Your task to perform on an android device: Search for usb-b on newegg, select the first entry, add it to the cart, then select checkout. Image 0: 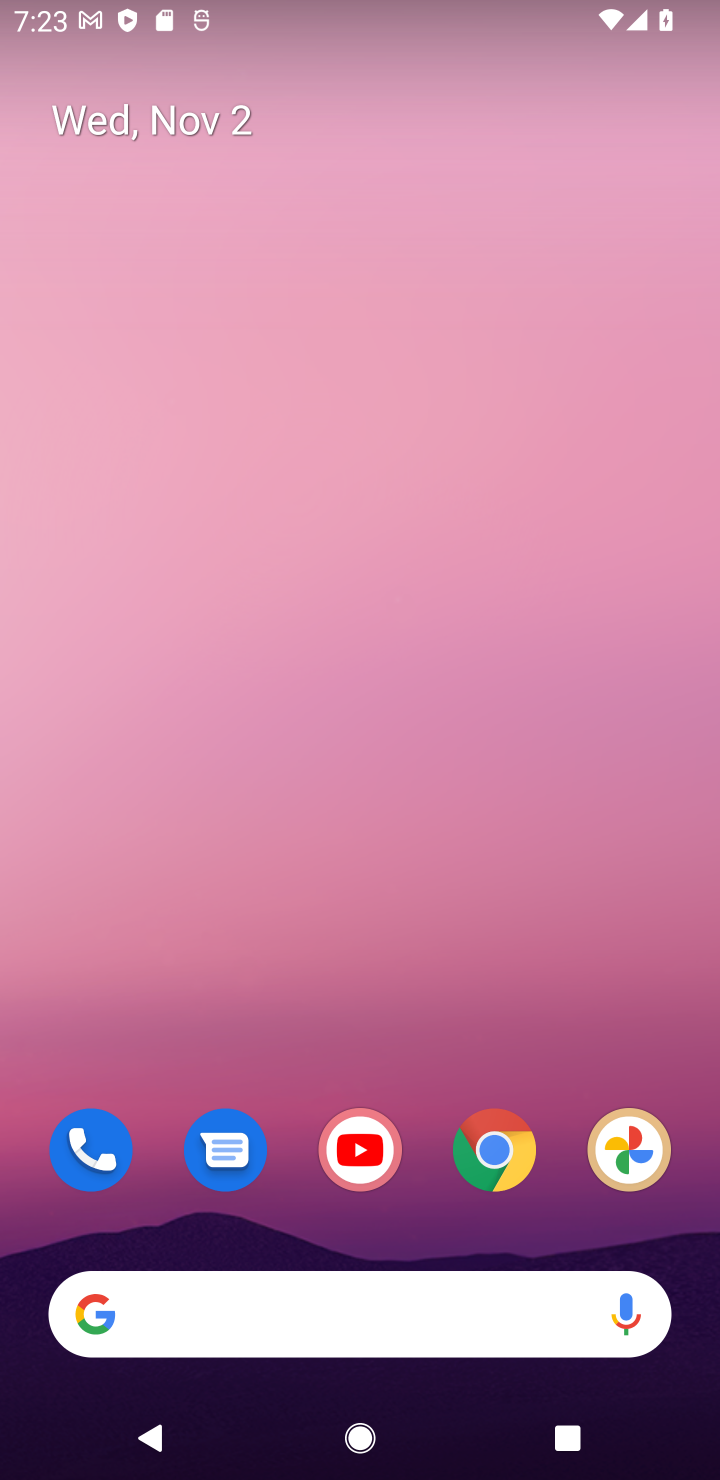
Step 0: click (495, 1168)
Your task to perform on an android device: Search for usb-b on newegg, select the first entry, add it to the cart, then select checkout. Image 1: 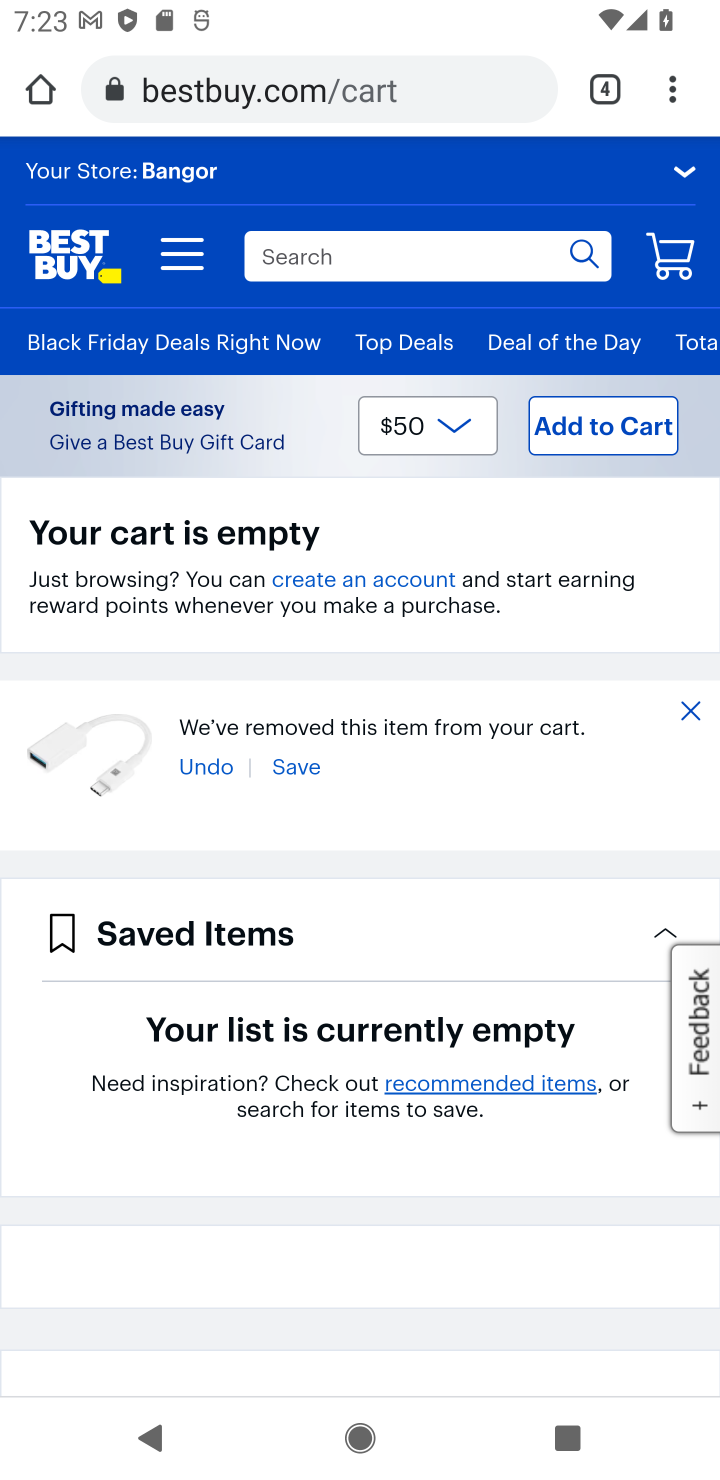
Step 1: press home button
Your task to perform on an android device: Search for usb-b on newegg, select the first entry, add it to the cart, then select checkout. Image 2: 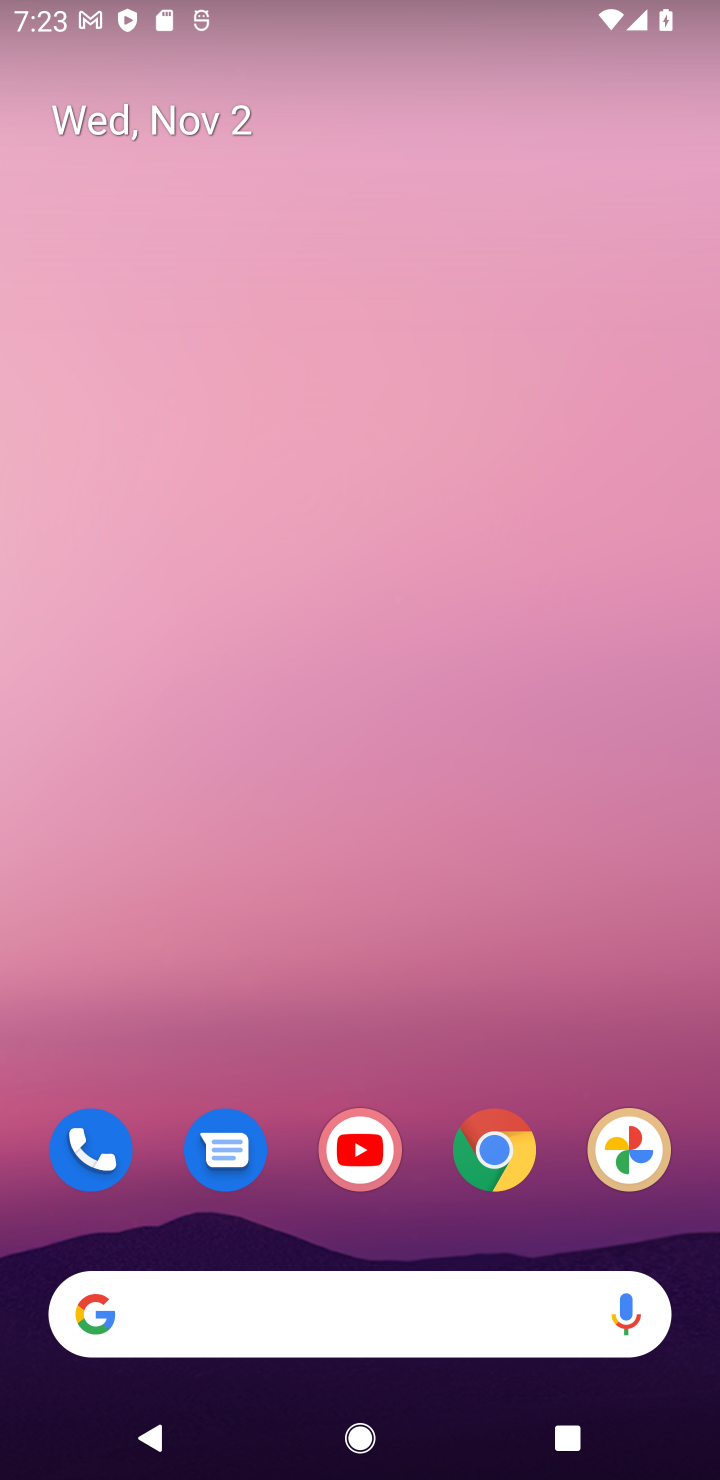
Step 2: click (509, 1133)
Your task to perform on an android device: Search for usb-b on newegg, select the first entry, add it to the cart, then select checkout. Image 3: 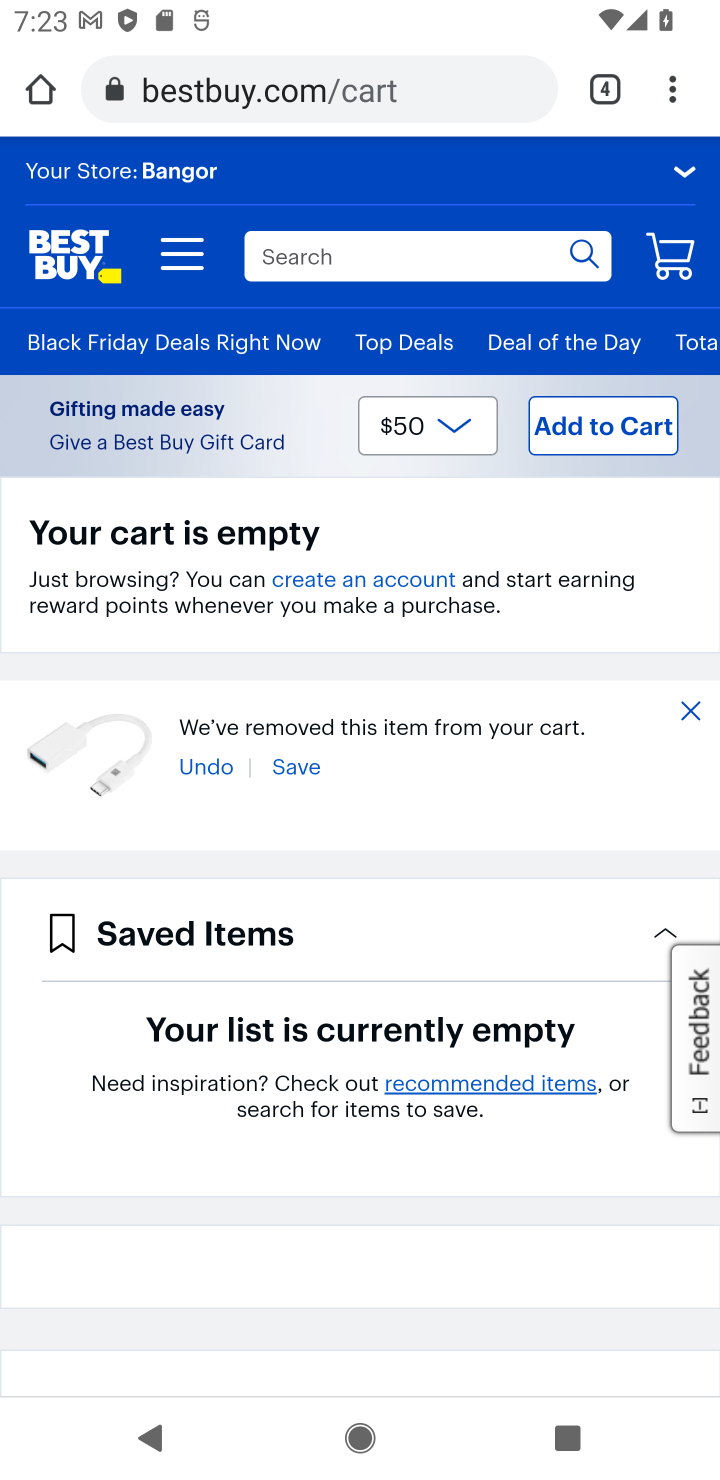
Step 3: click (604, 75)
Your task to perform on an android device: Search for usb-b on newegg, select the first entry, add it to the cart, then select checkout. Image 4: 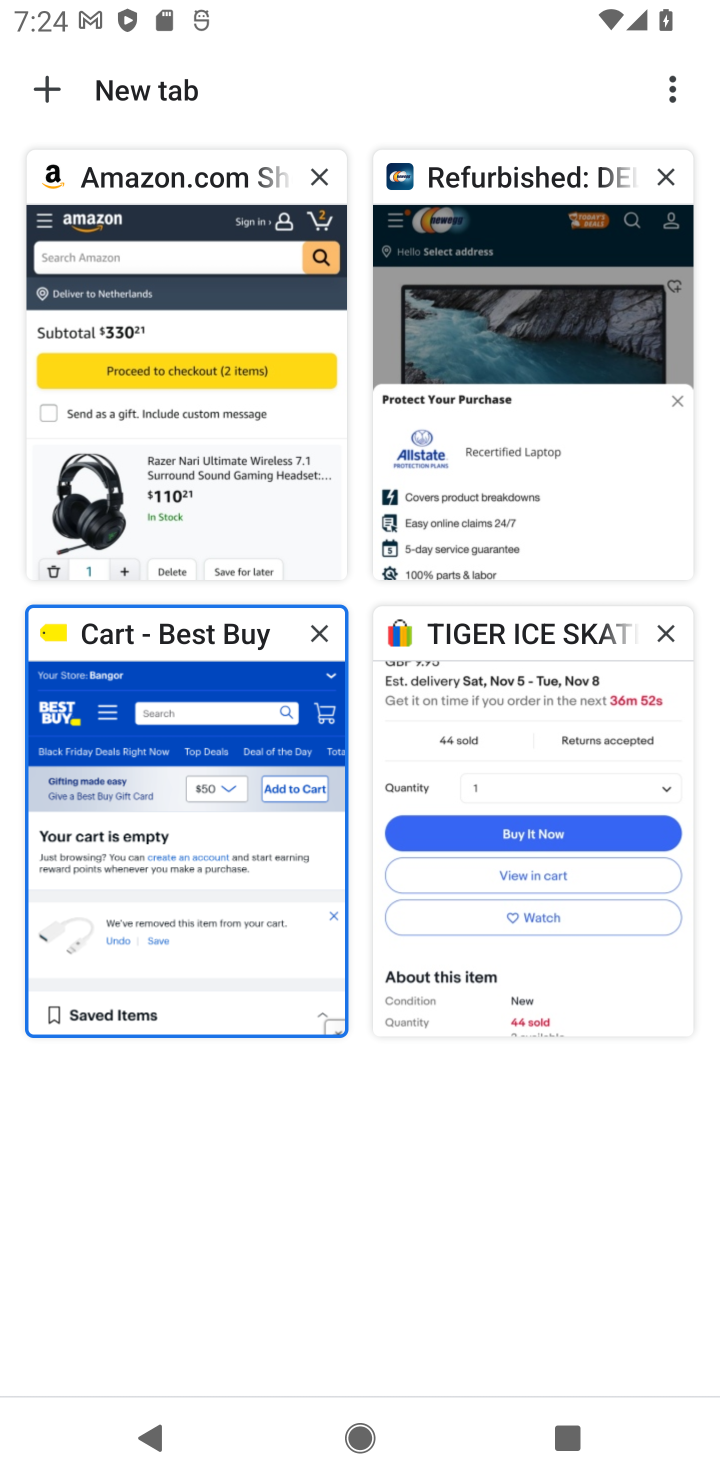
Step 4: click (466, 316)
Your task to perform on an android device: Search for usb-b on newegg, select the first entry, add it to the cart, then select checkout. Image 5: 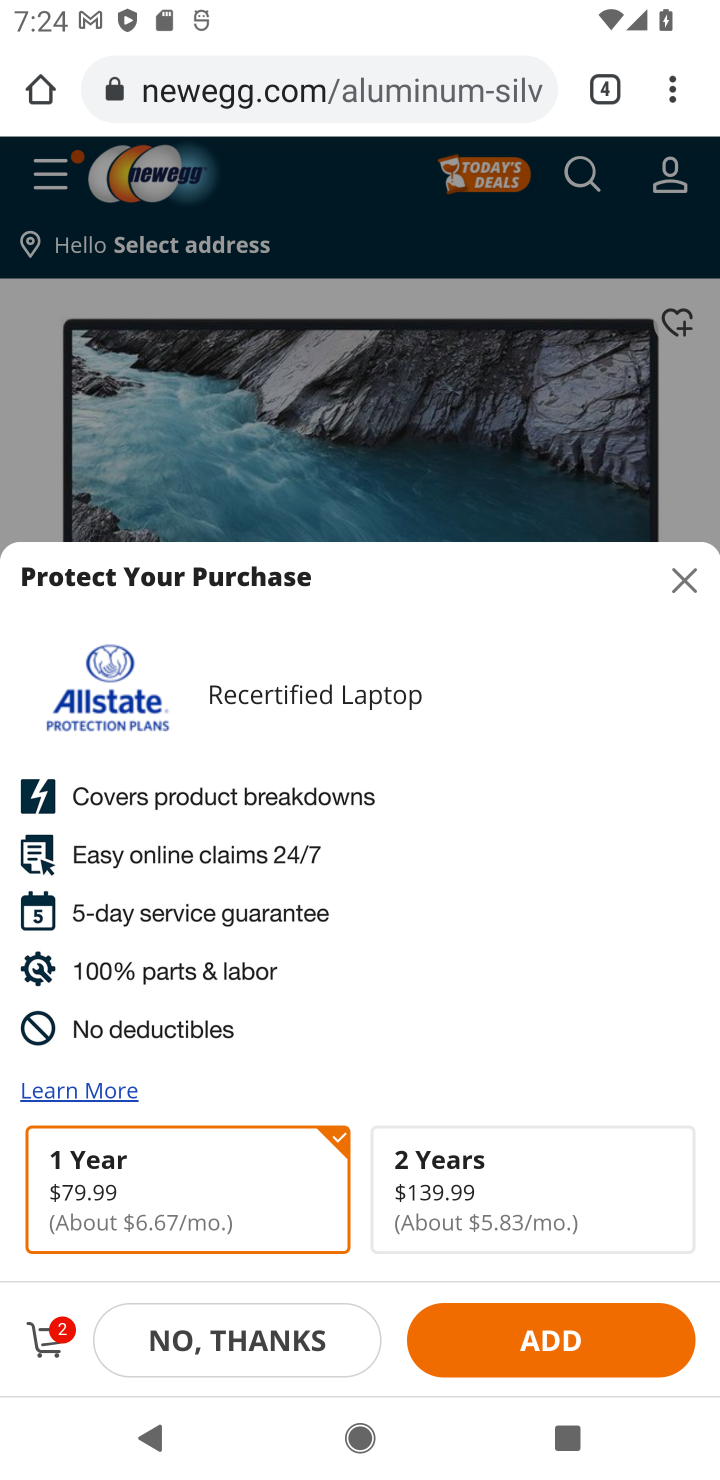
Step 5: click (266, 1324)
Your task to perform on an android device: Search for usb-b on newegg, select the first entry, add it to the cart, then select checkout. Image 6: 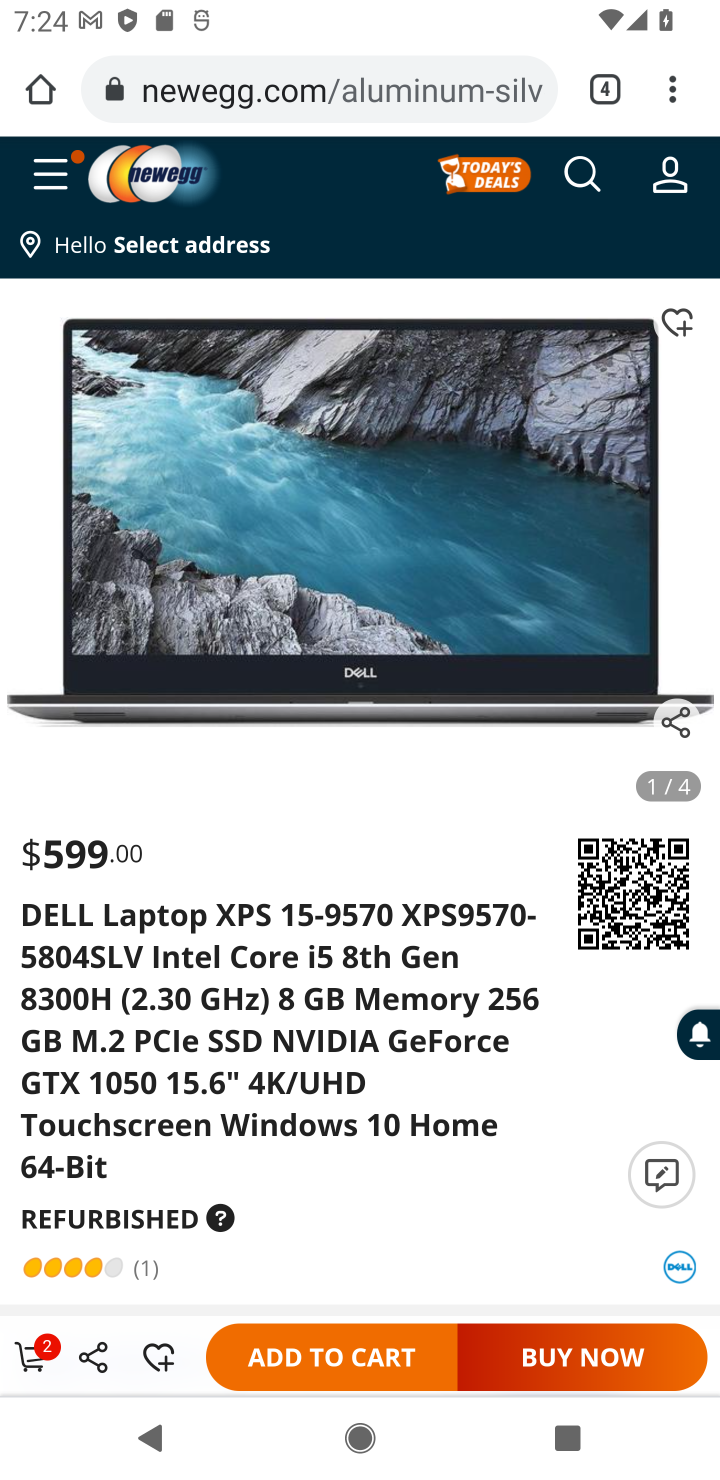
Step 6: click (590, 177)
Your task to perform on an android device: Search for usb-b on newegg, select the first entry, add it to the cart, then select checkout. Image 7: 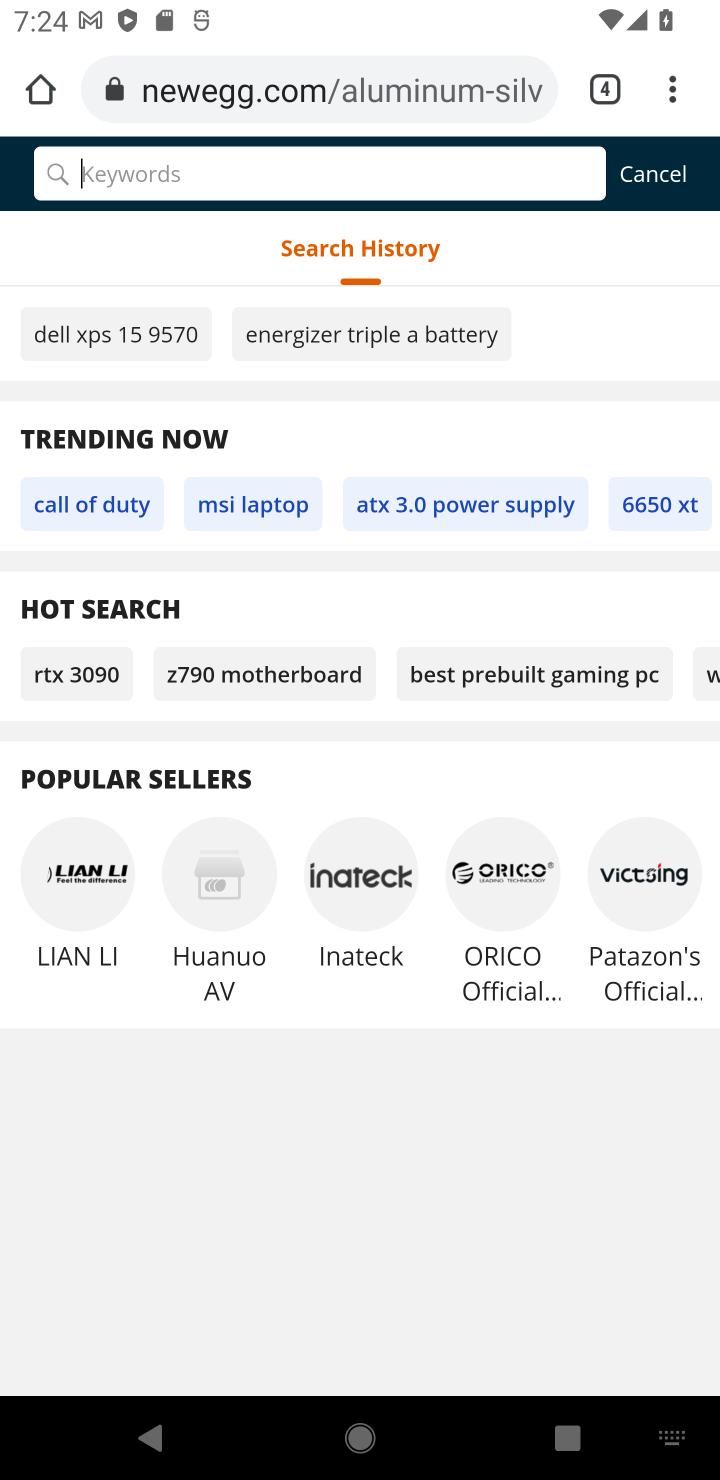
Step 7: type "usb-b"
Your task to perform on an android device: Search for usb-b on newegg, select the first entry, add it to the cart, then select checkout. Image 8: 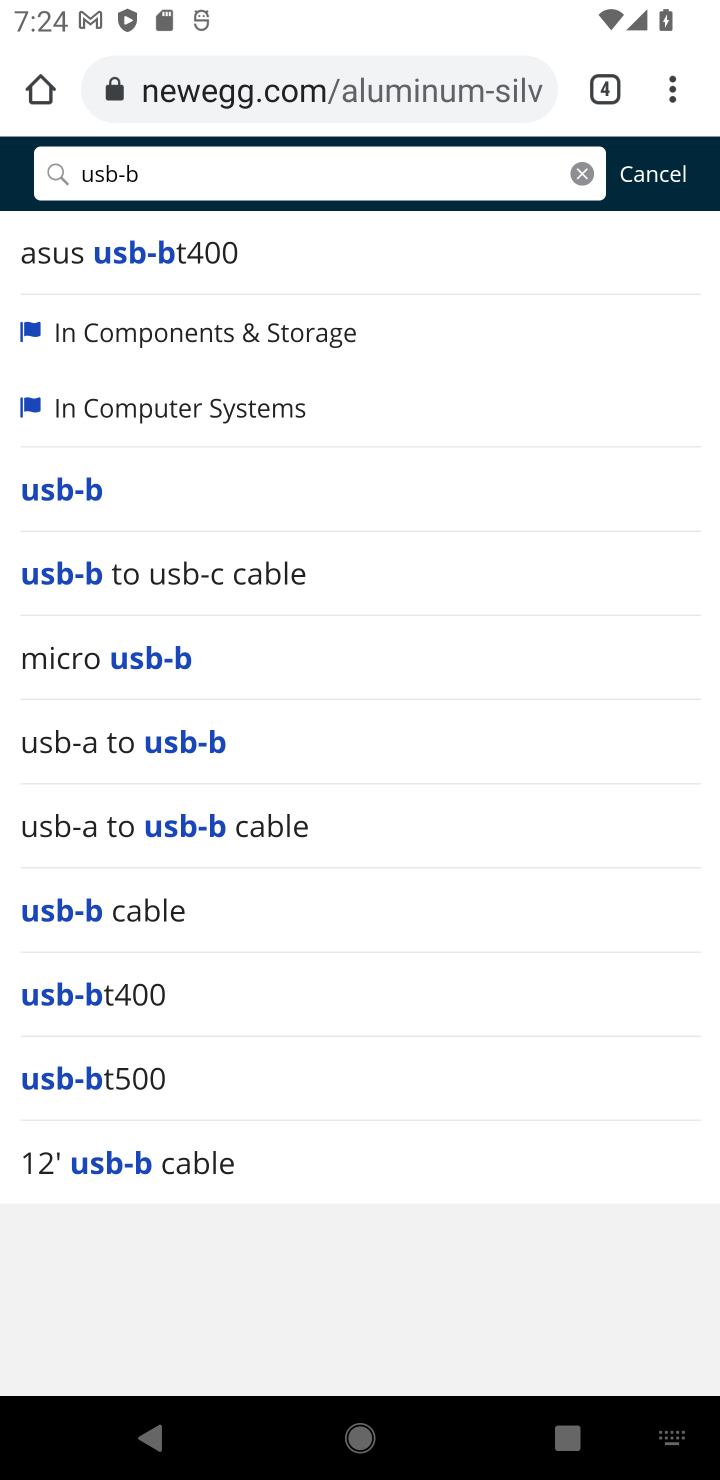
Step 8: click (60, 487)
Your task to perform on an android device: Search for usb-b on newegg, select the first entry, add it to the cart, then select checkout. Image 9: 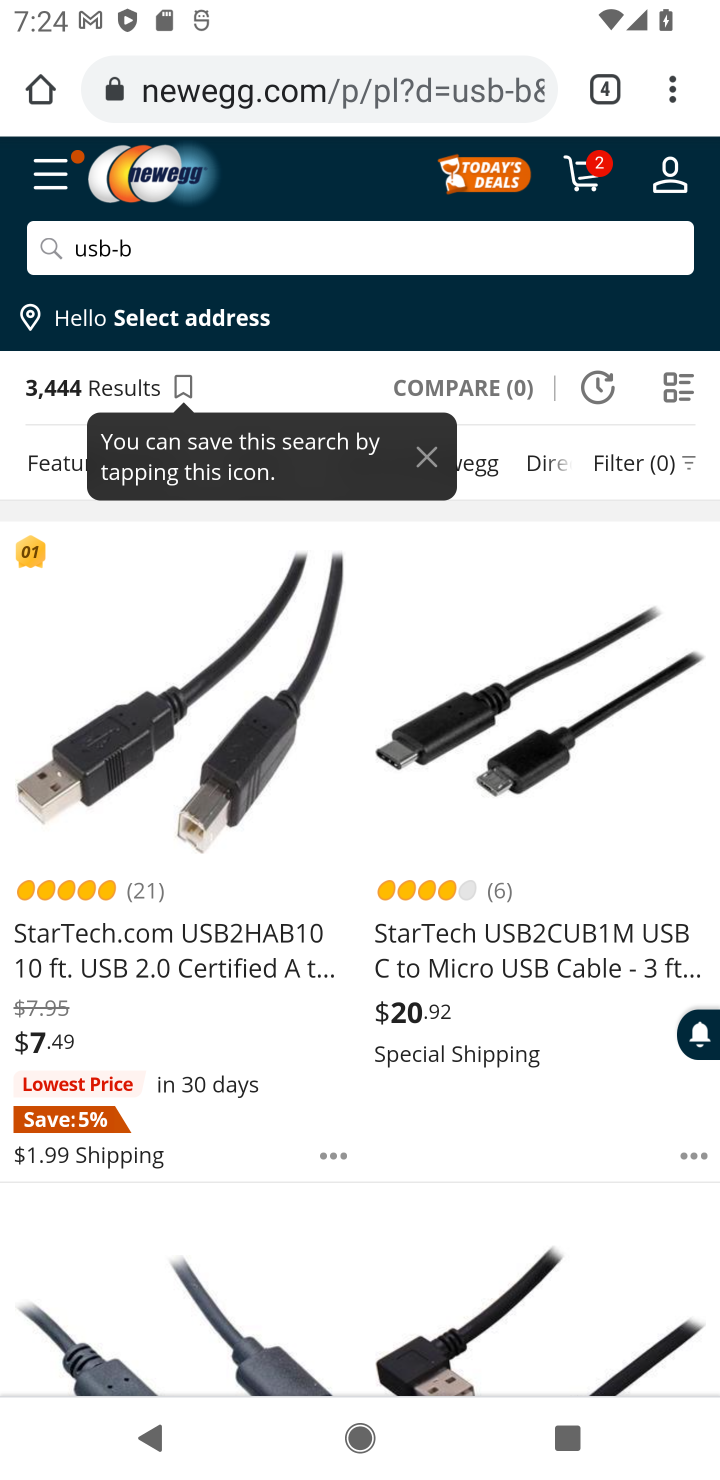
Step 9: click (257, 956)
Your task to perform on an android device: Search for usb-b on newegg, select the first entry, add it to the cart, then select checkout. Image 10: 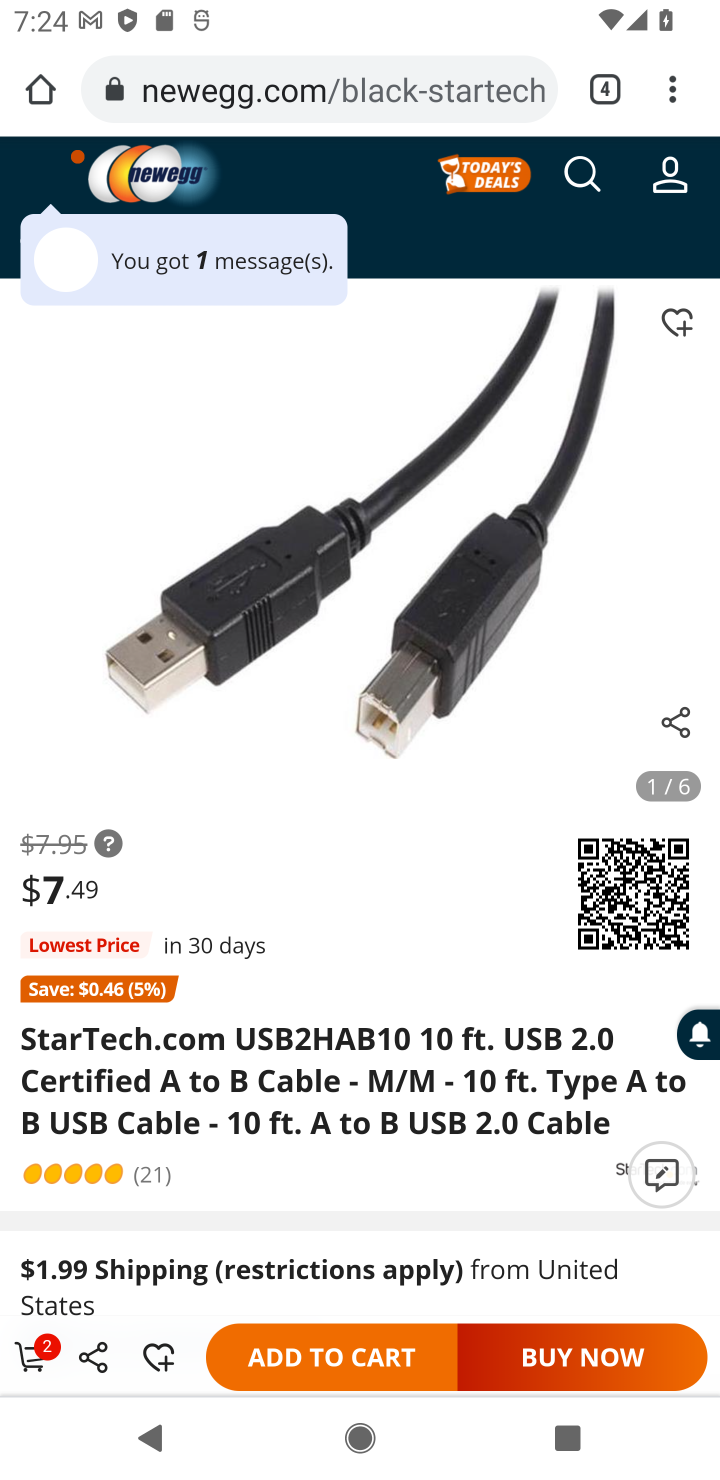
Step 10: click (299, 1353)
Your task to perform on an android device: Search for usb-b on newegg, select the first entry, add it to the cart, then select checkout. Image 11: 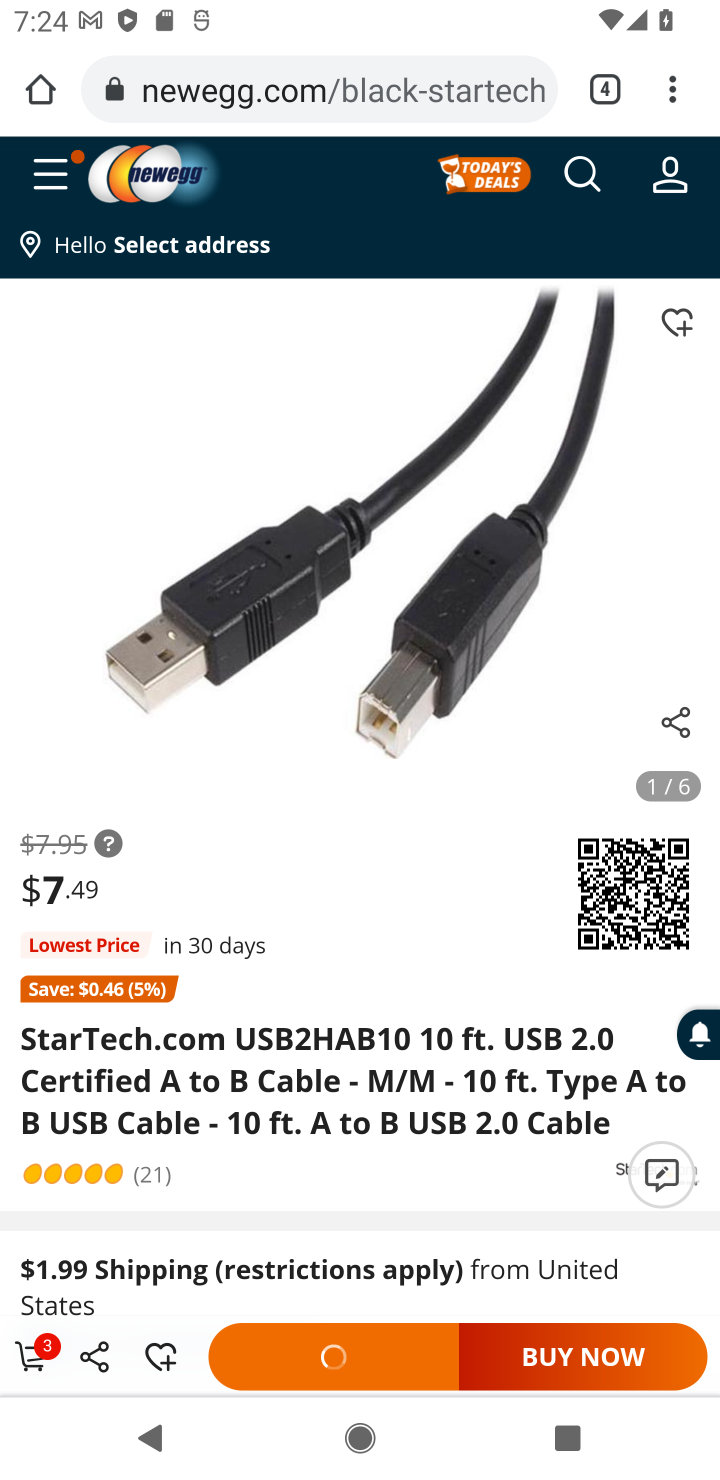
Step 11: click (27, 1358)
Your task to perform on an android device: Search for usb-b on newegg, select the first entry, add it to the cart, then select checkout. Image 12: 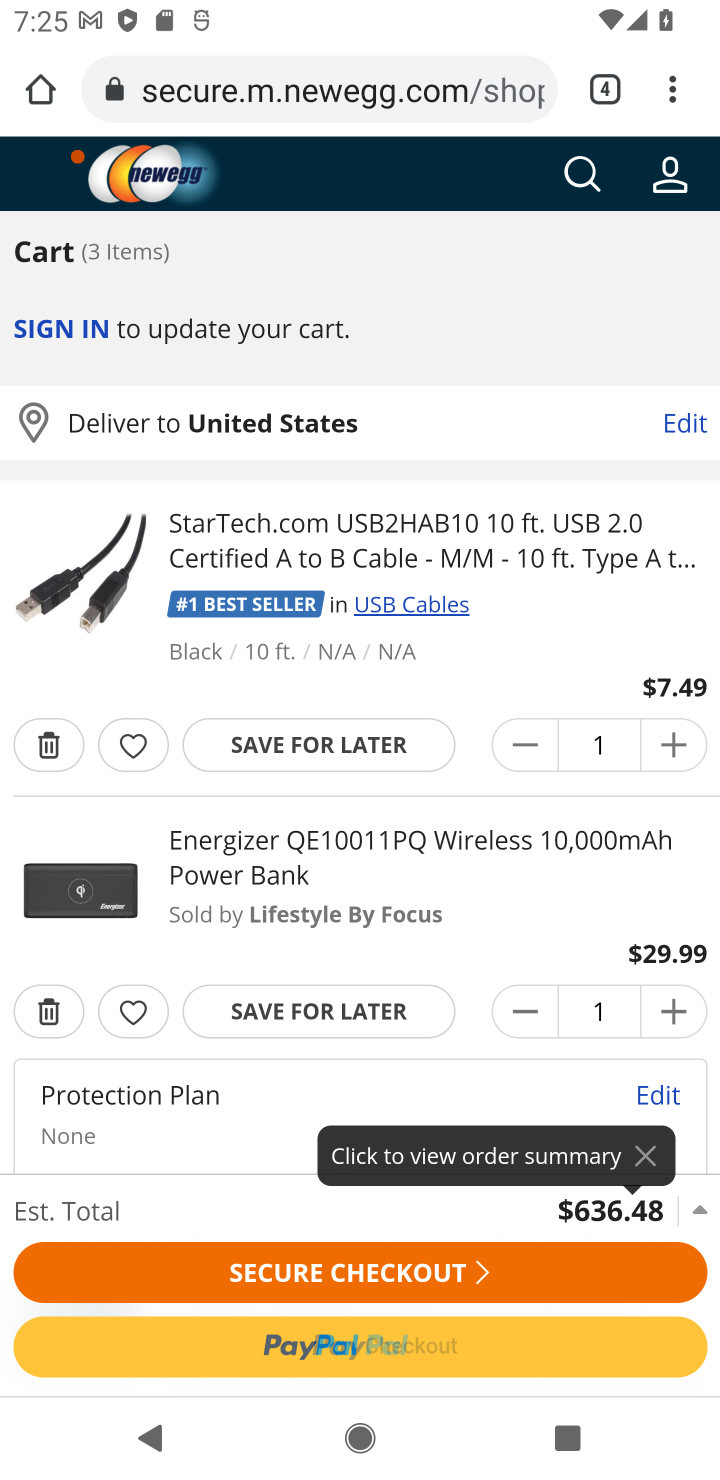
Step 12: click (301, 1282)
Your task to perform on an android device: Search for usb-b on newegg, select the first entry, add it to the cart, then select checkout. Image 13: 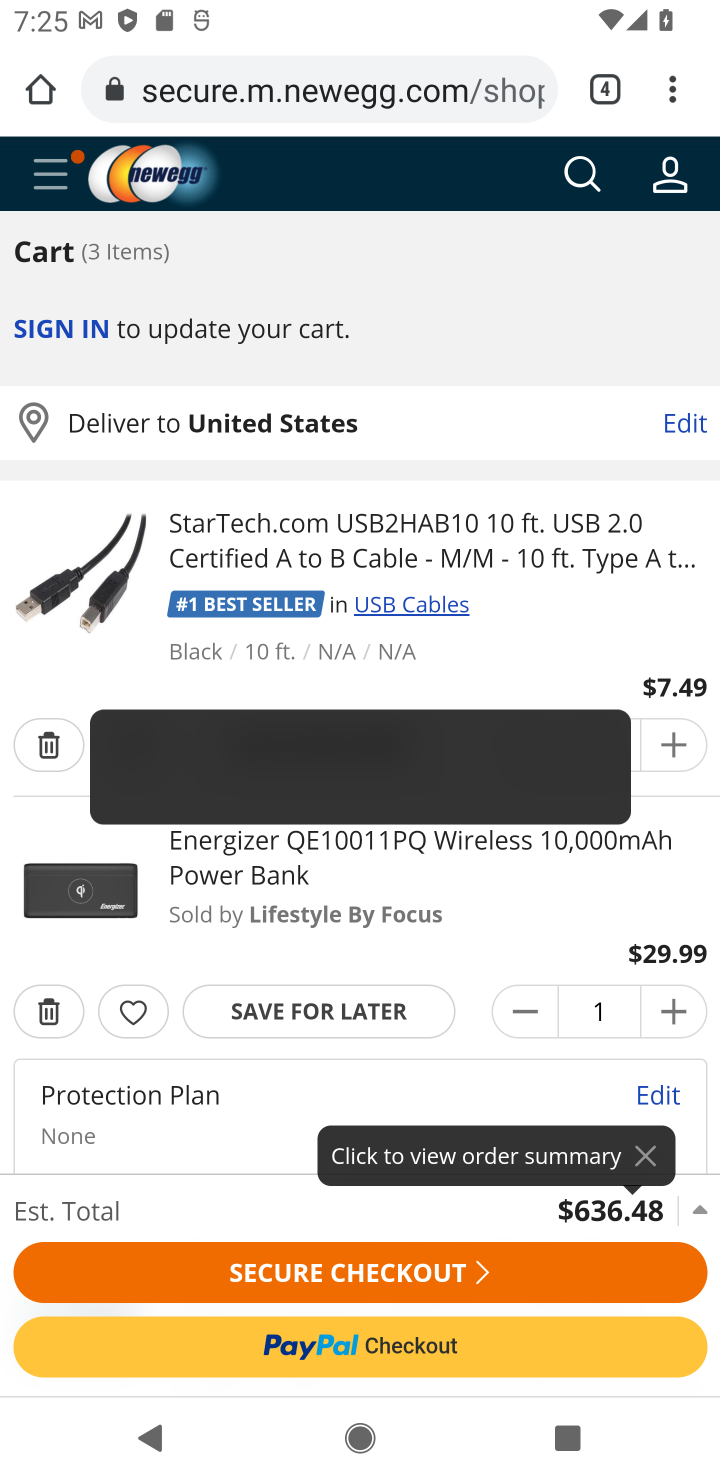
Step 13: click (468, 1277)
Your task to perform on an android device: Search for usb-b on newegg, select the first entry, add it to the cart, then select checkout. Image 14: 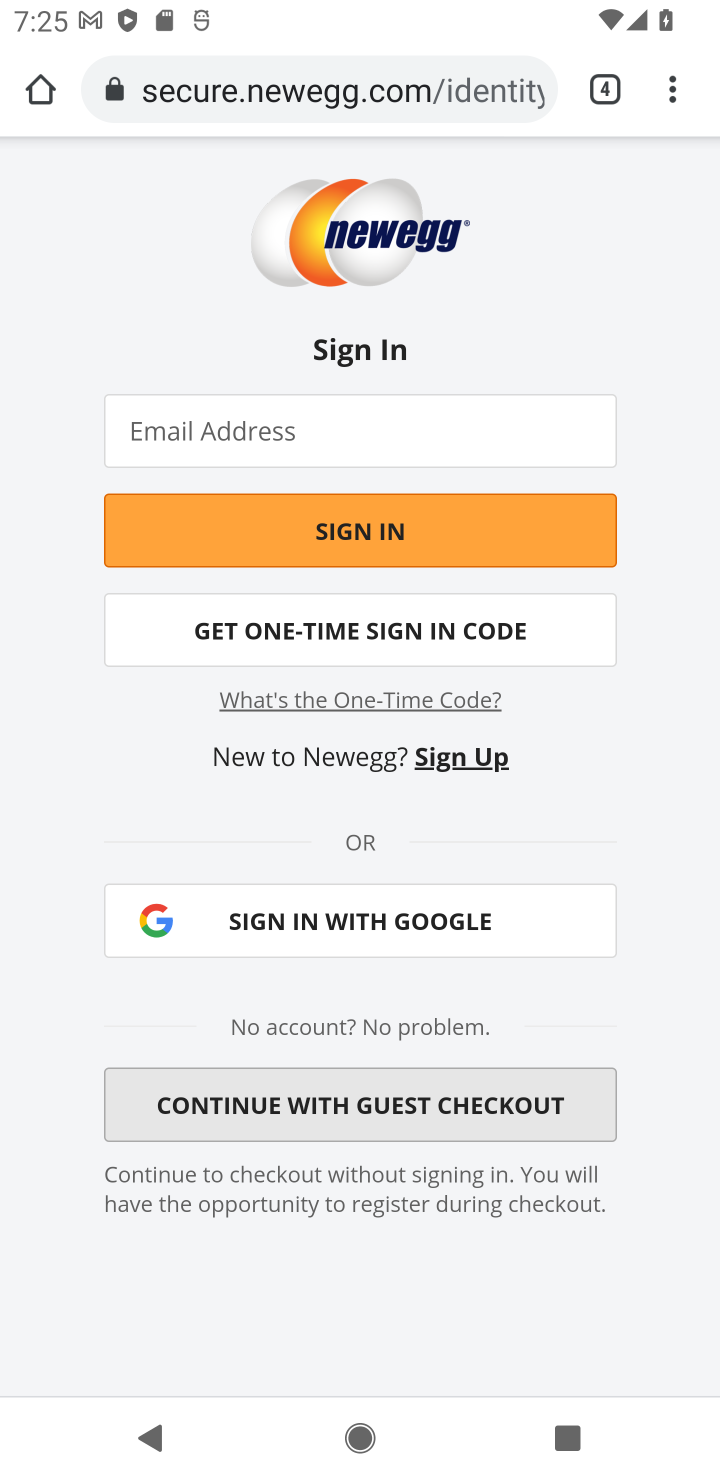
Step 14: task complete